Your task to perform on an android device: uninstall "Google Sheets" Image 0: 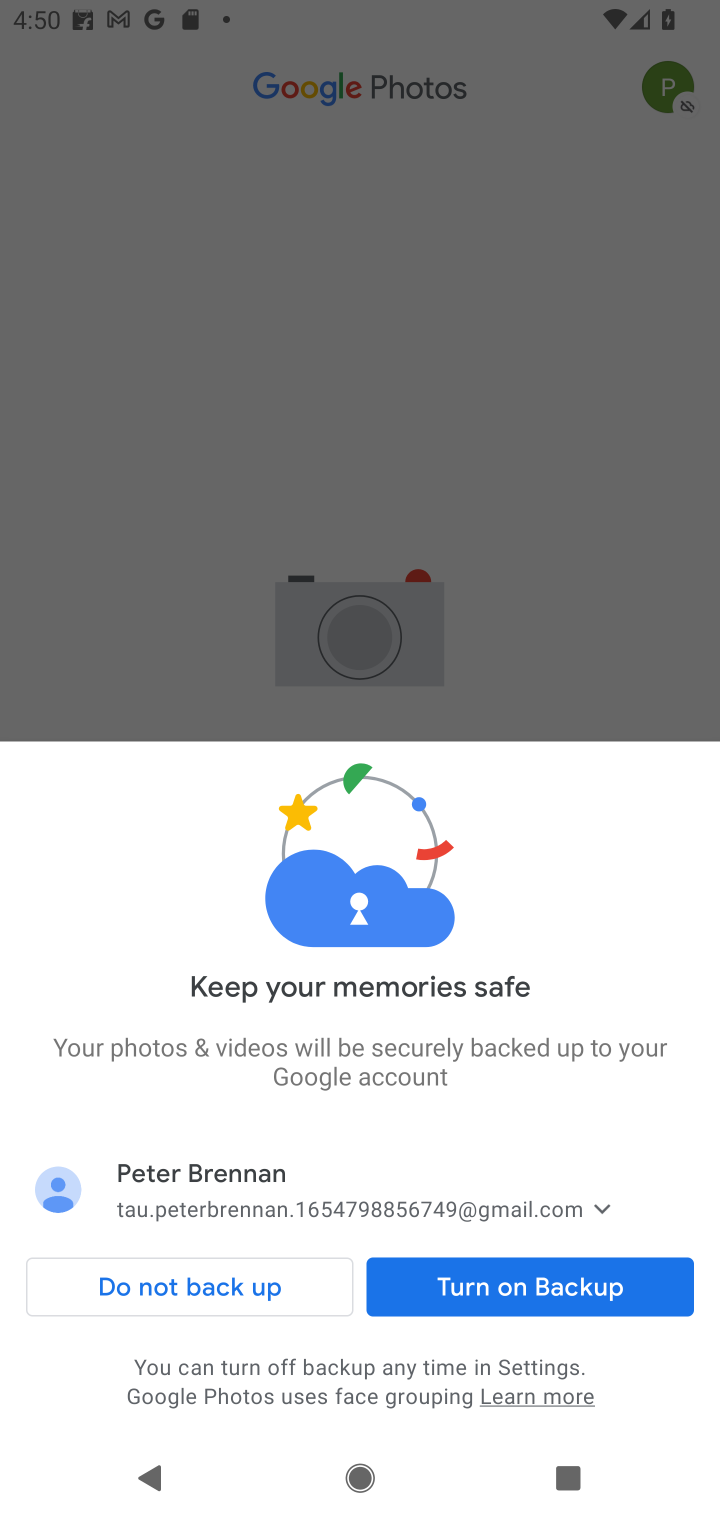
Step 0: press home button
Your task to perform on an android device: uninstall "Google Sheets" Image 1: 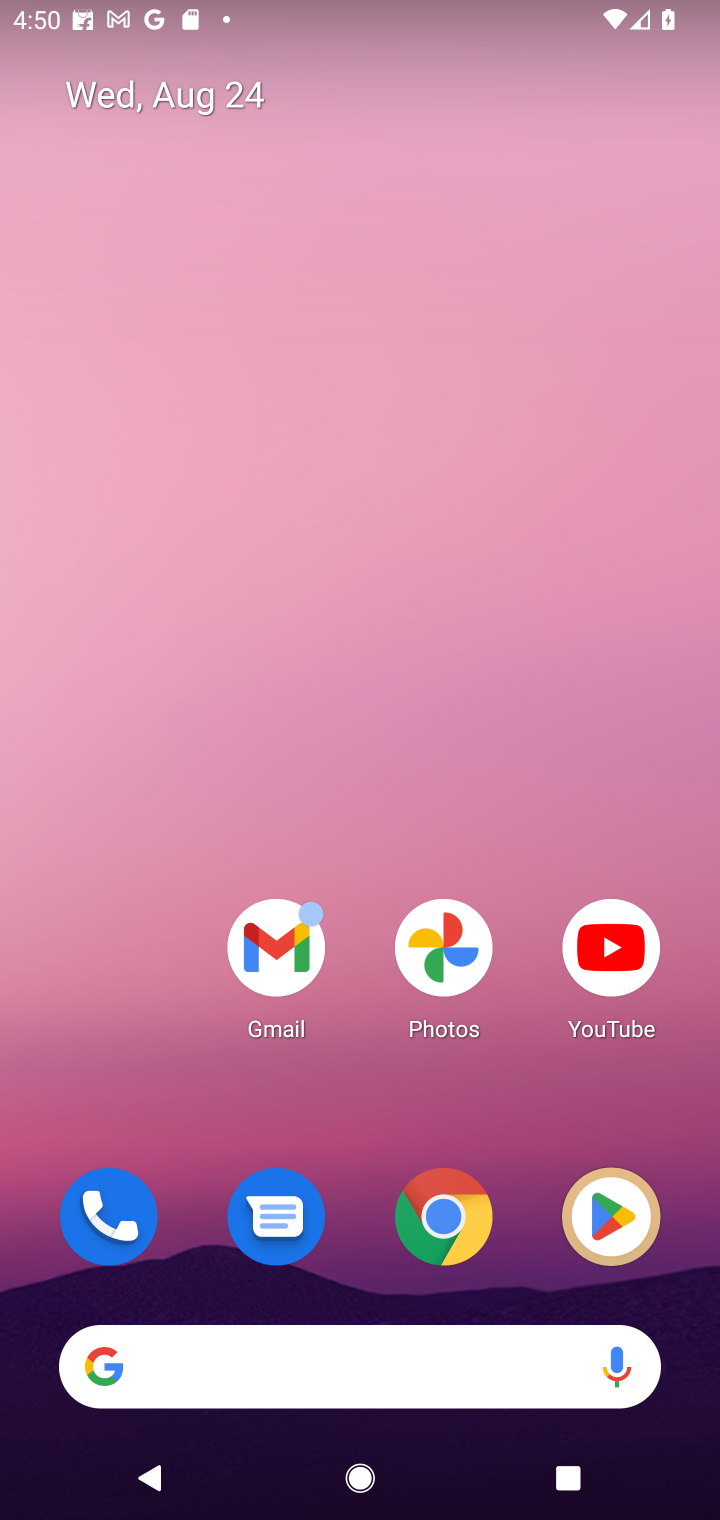
Step 1: click (601, 1194)
Your task to perform on an android device: uninstall "Google Sheets" Image 2: 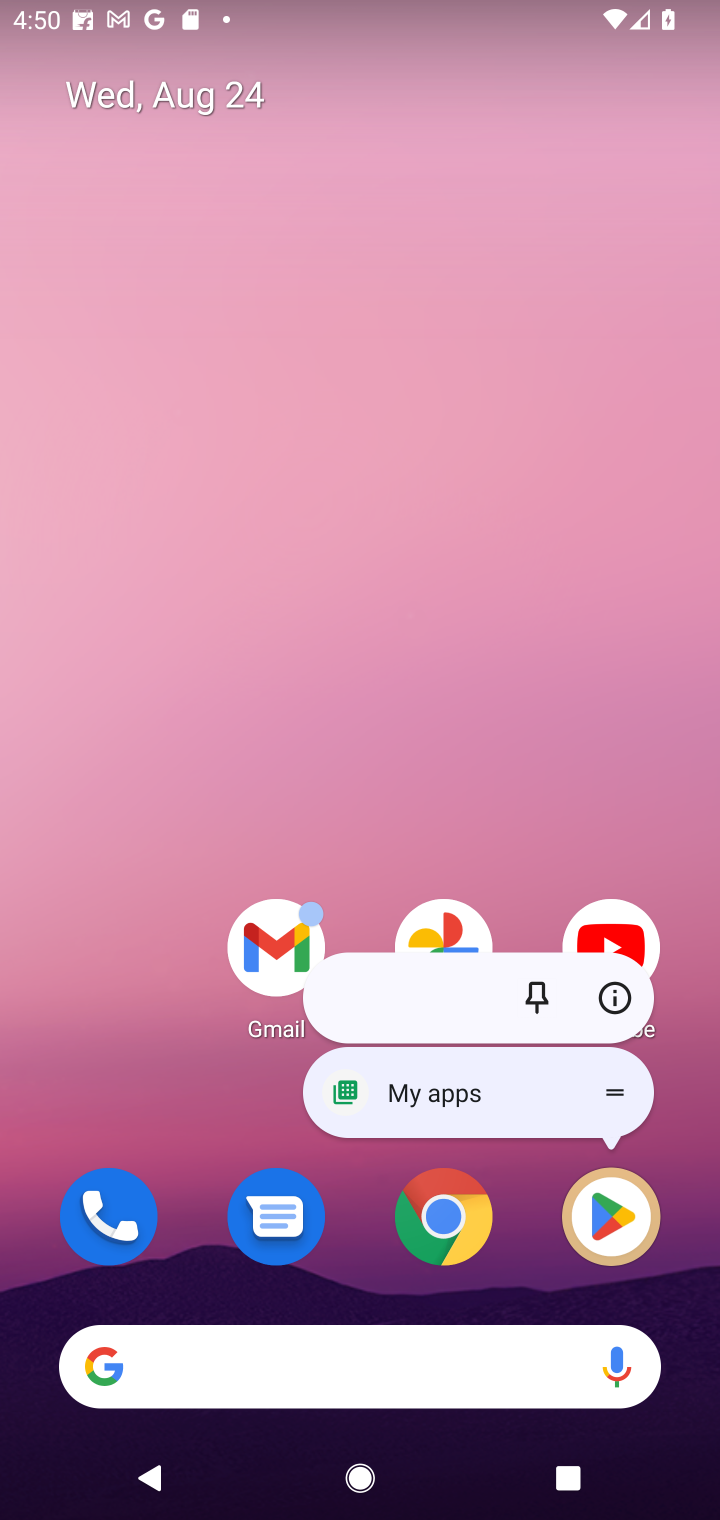
Step 2: click (601, 1194)
Your task to perform on an android device: uninstall "Google Sheets" Image 3: 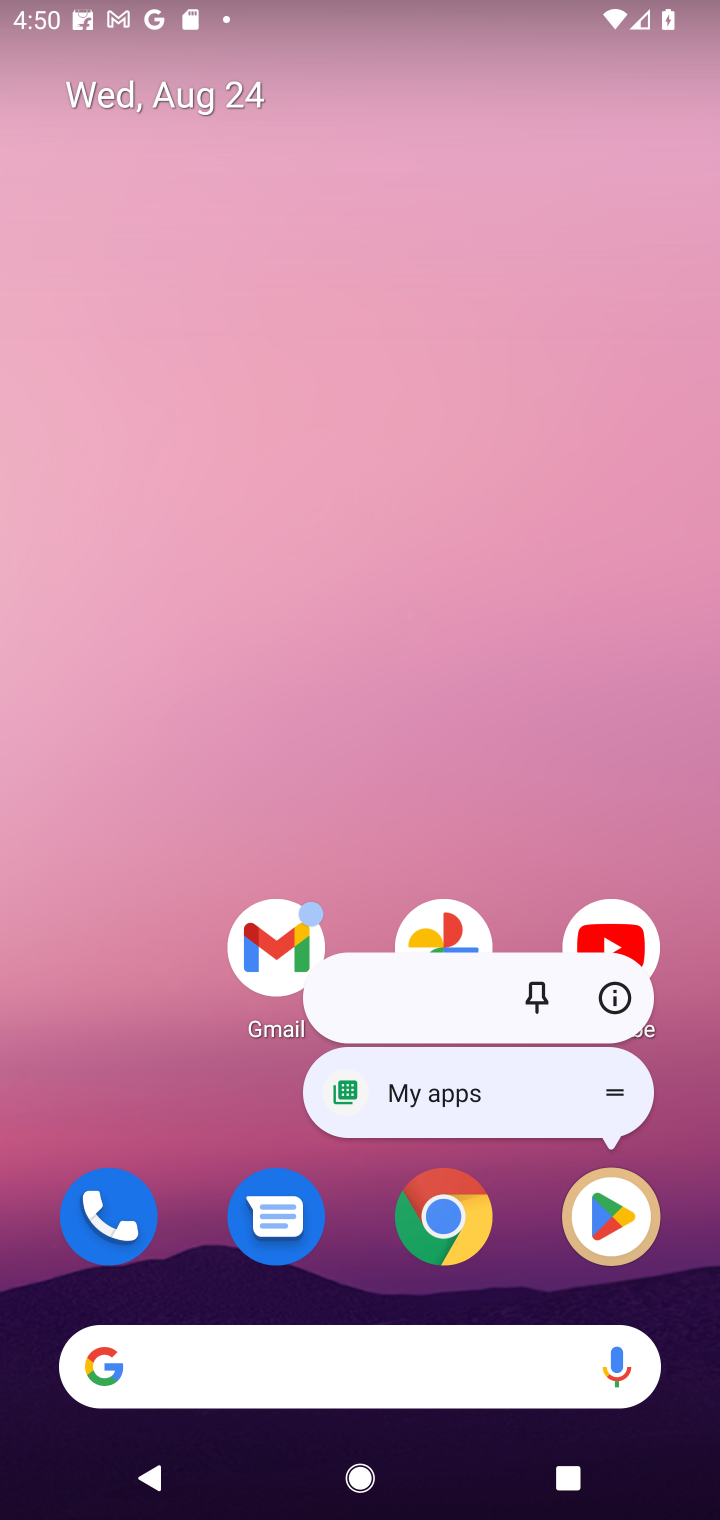
Step 3: click (601, 1194)
Your task to perform on an android device: uninstall "Google Sheets" Image 4: 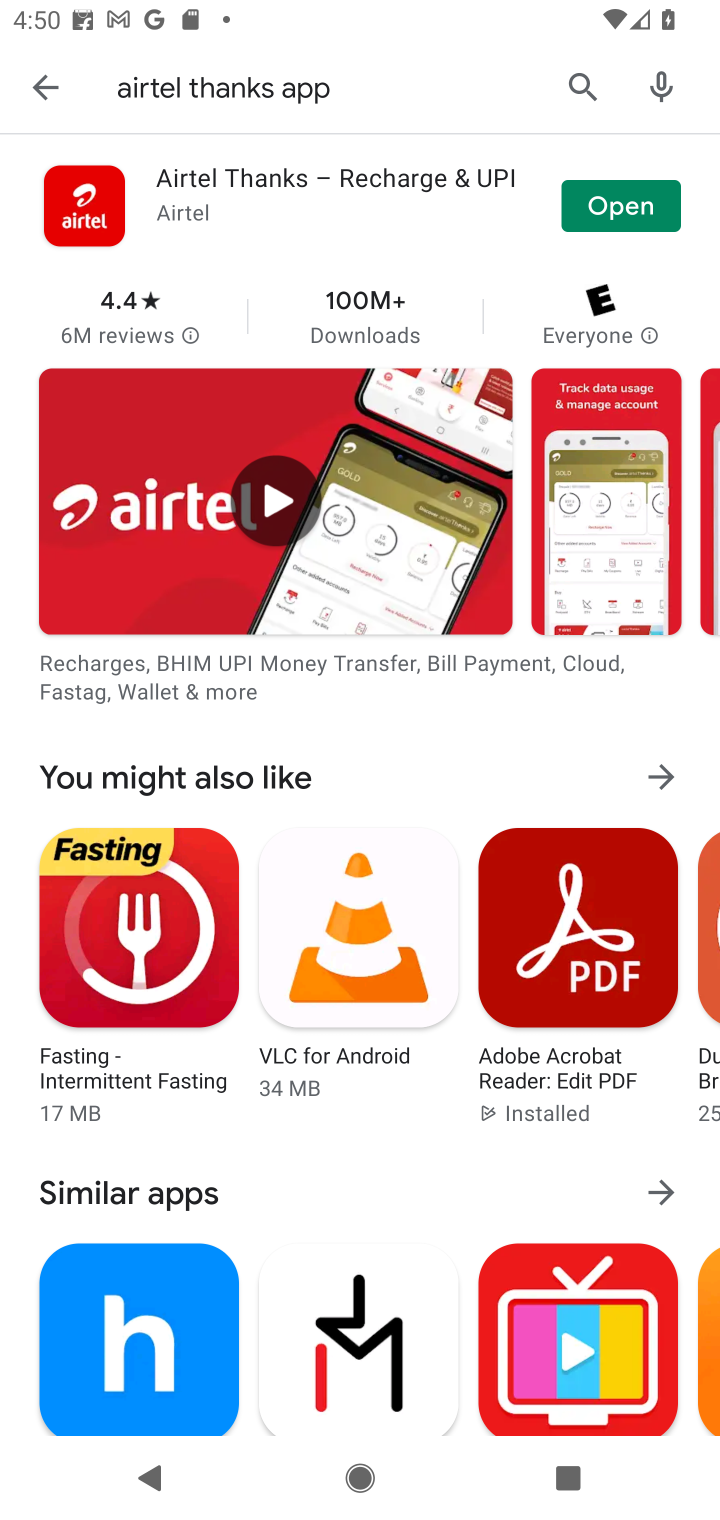
Step 4: click (582, 74)
Your task to perform on an android device: uninstall "Google Sheets" Image 5: 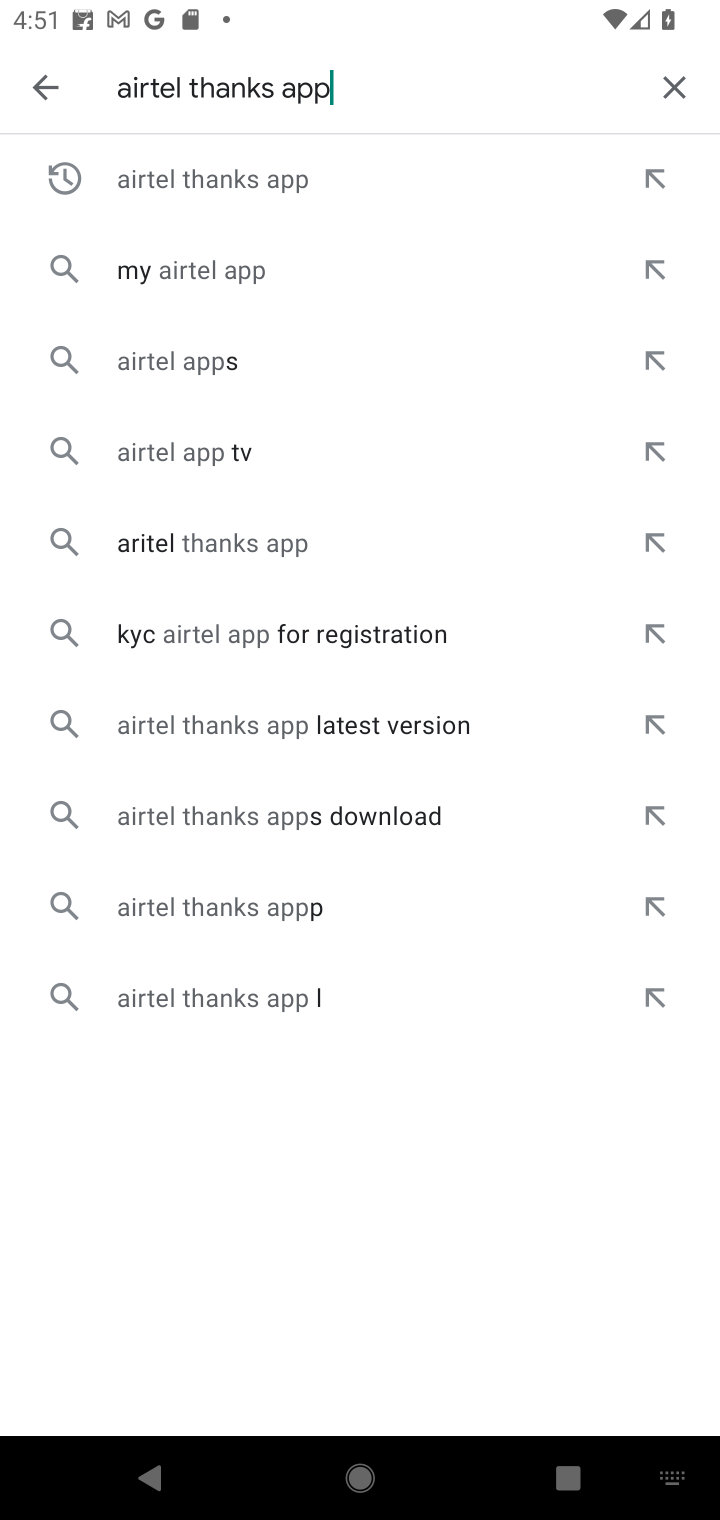
Step 5: click (673, 98)
Your task to perform on an android device: uninstall "Google Sheets" Image 6: 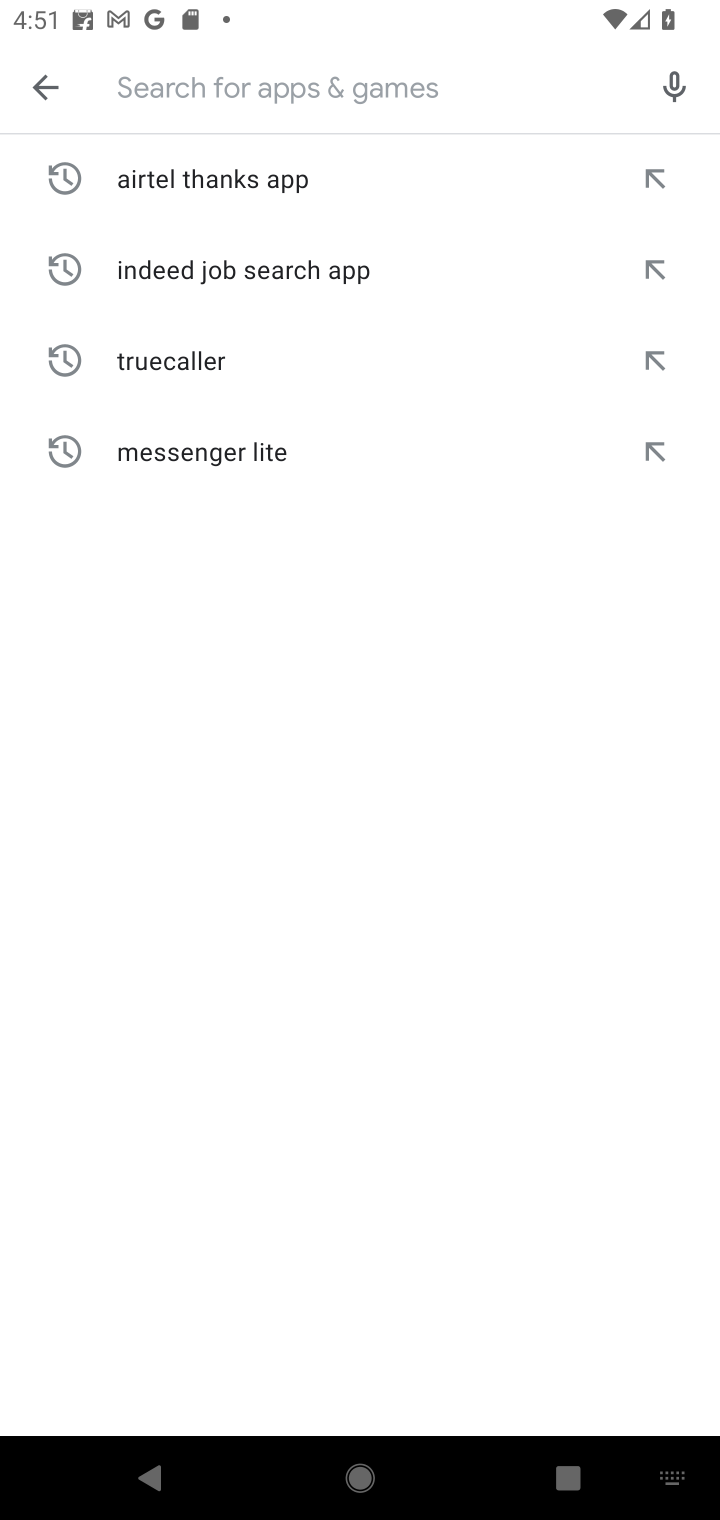
Step 6: type "Google Sheets"
Your task to perform on an android device: uninstall "Google Sheets" Image 7: 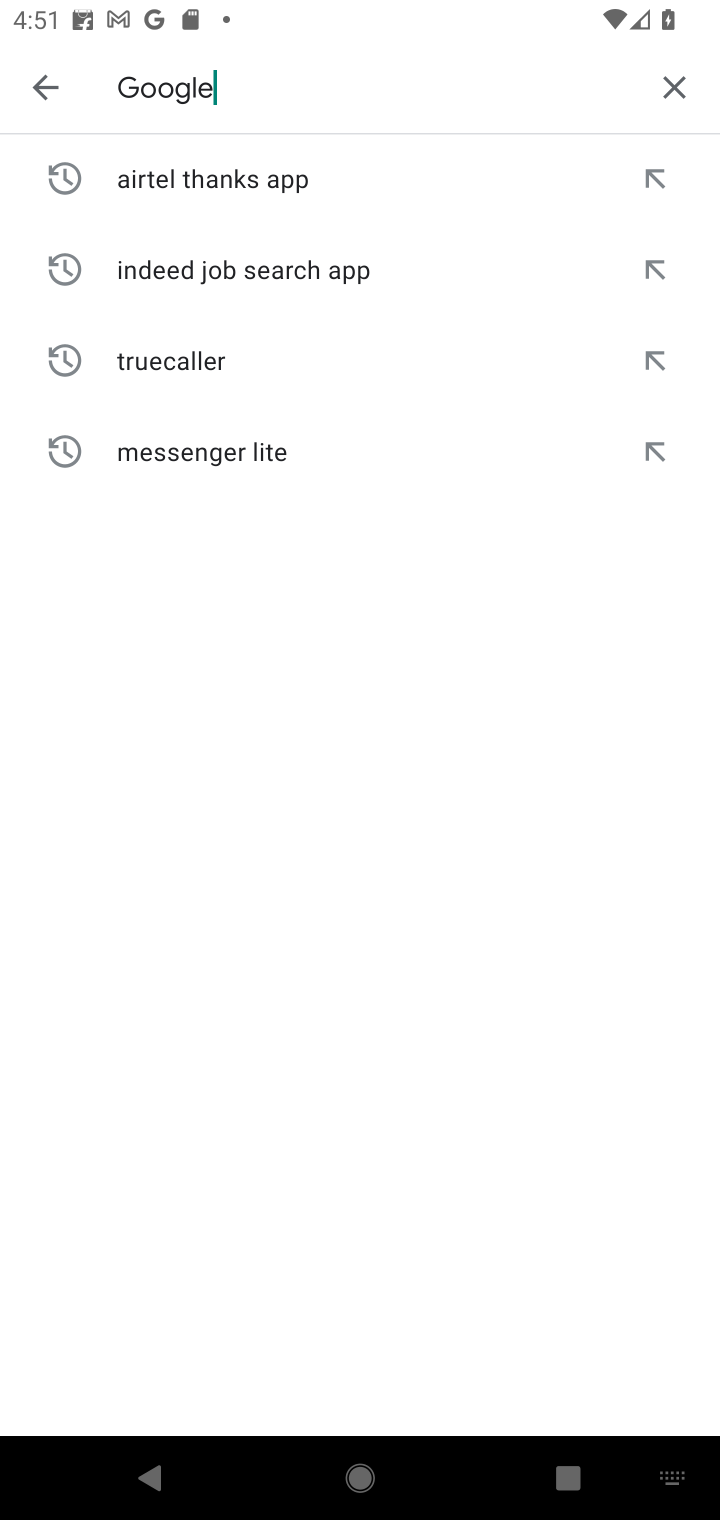
Step 7: type ""
Your task to perform on an android device: uninstall "Google Sheets" Image 8: 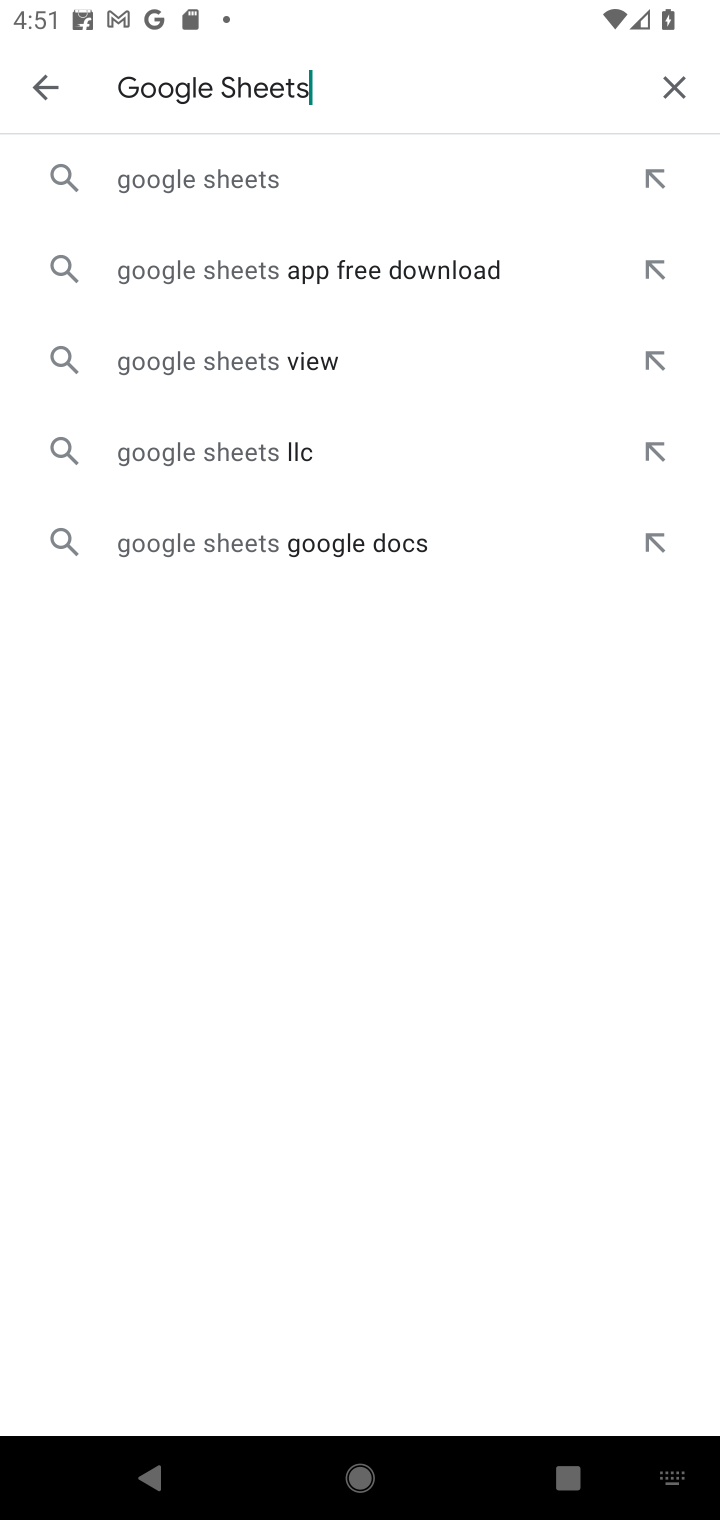
Step 8: click (329, 164)
Your task to perform on an android device: uninstall "Google Sheets" Image 9: 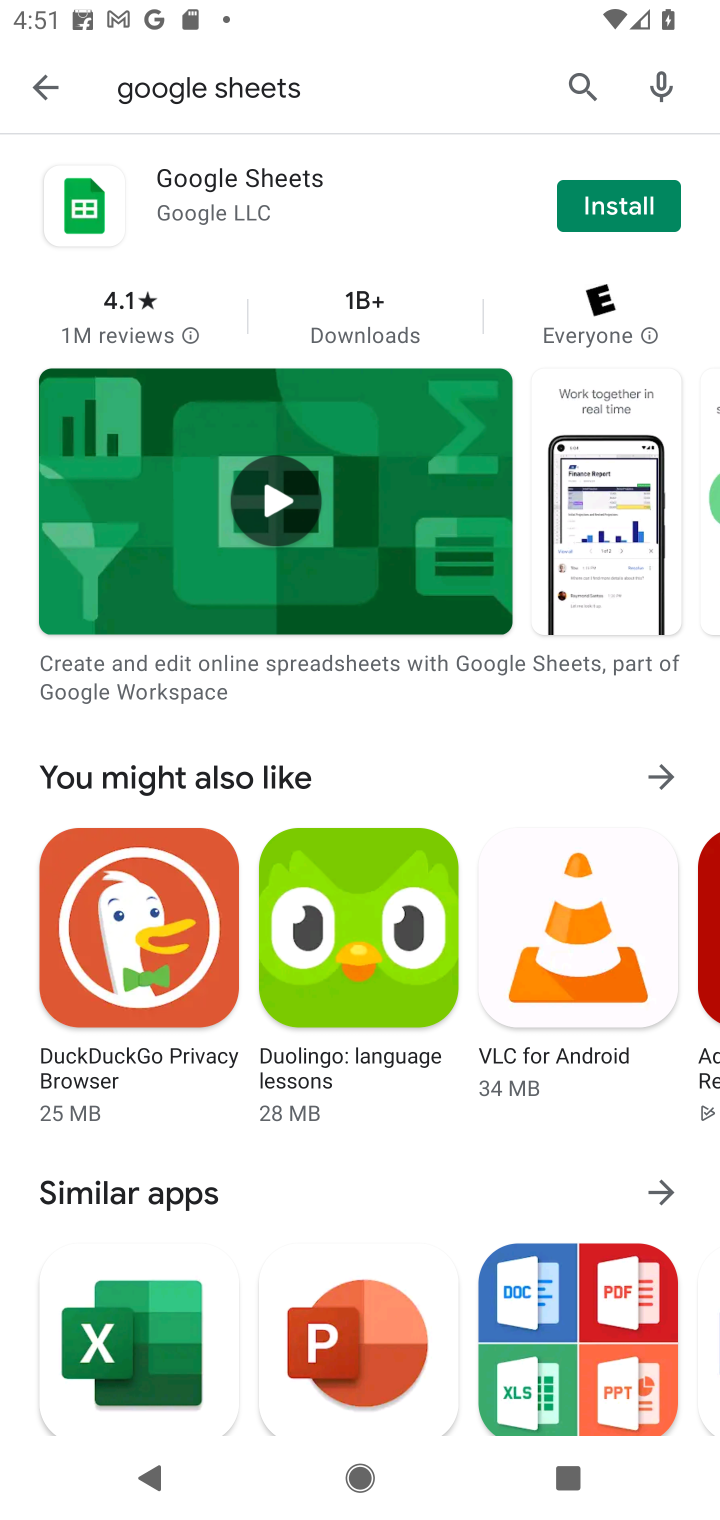
Step 9: task complete